Your task to perform on an android device: Show me productivity apps on the Play Store Image 0: 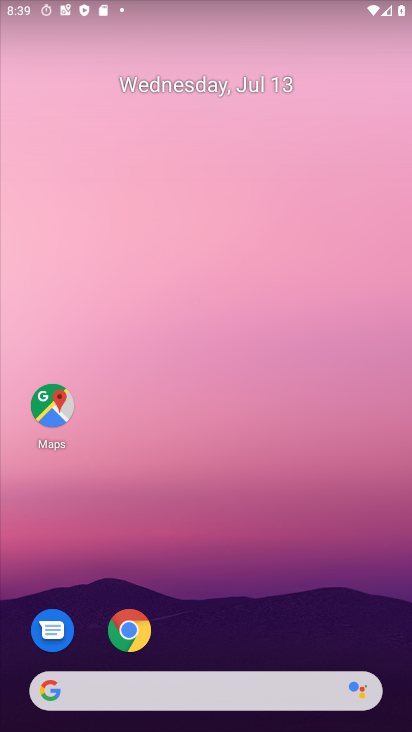
Step 0: drag from (159, 639) to (192, 155)
Your task to perform on an android device: Show me productivity apps on the Play Store Image 1: 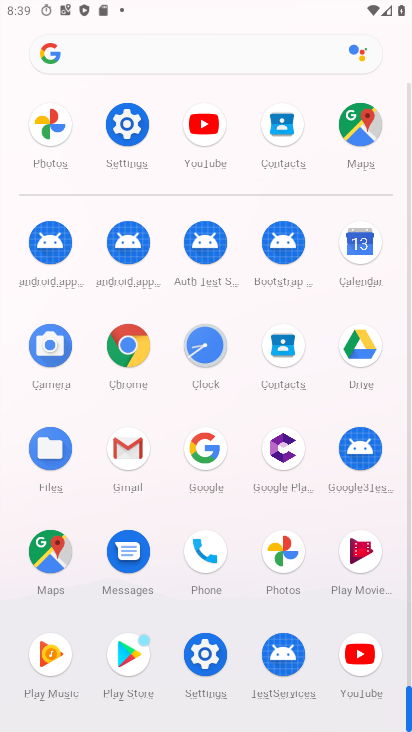
Step 1: drag from (175, 649) to (207, 297)
Your task to perform on an android device: Show me productivity apps on the Play Store Image 2: 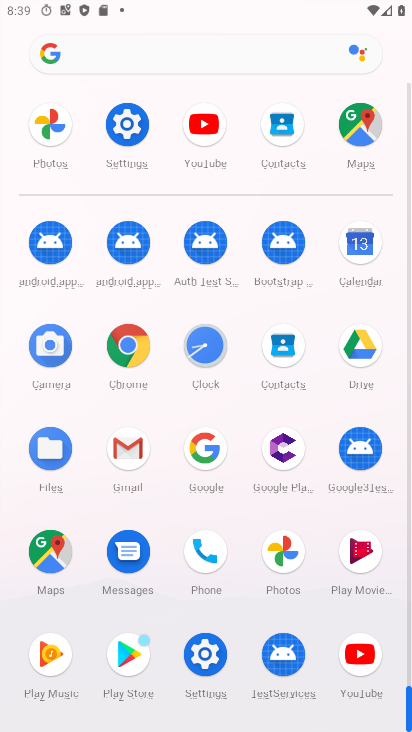
Step 2: click (121, 655)
Your task to perform on an android device: Show me productivity apps on the Play Store Image 3: 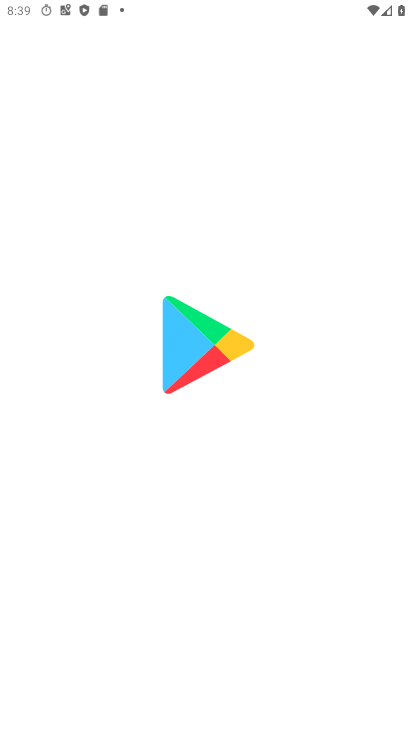
Step 3: drag from (196, 606) to (196, 376)
Your task to perform on an android device: Show me productivity apps on the Play Store Image 4: 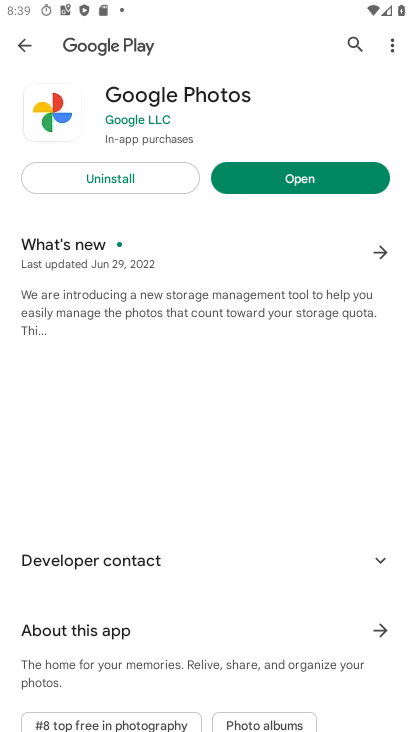
Step 4: drag from (204, 292) to (240, 591)
Your task to perform on an android device: Show me productivity apps on the Play Store Image 5: 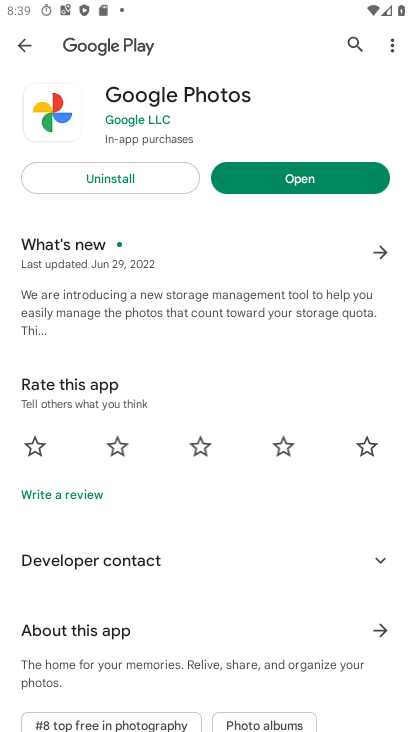
Step 5: drag from (158, 470) to (180, 255)
Your task to perform on an android device: Show me productivity apps on the Play Store Image 6: 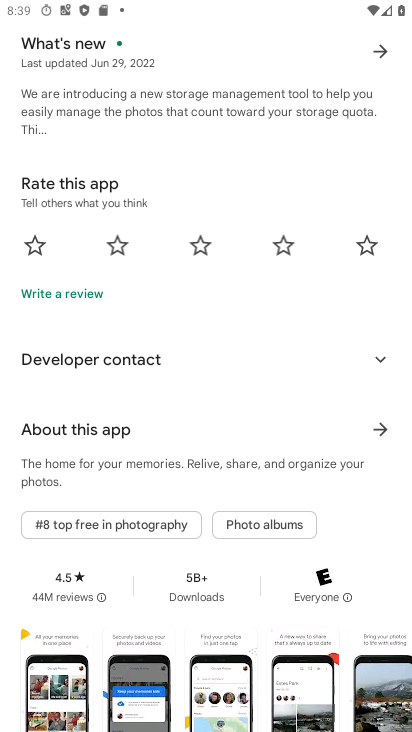
Step 6: drag from (175, 296) to (233, 640)
Your task to perform on an android device: Show me productivity apps on the Play Store Image 7: 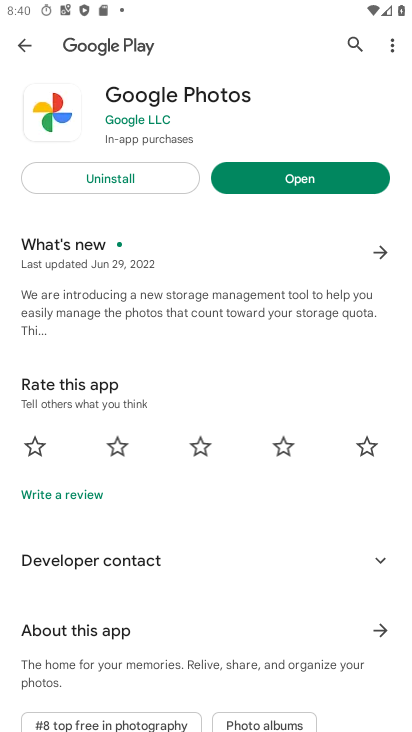
Step 7: click (21, 48)
Your task to perform on an android device: Show me productivity apps on the Play Store Image 8: 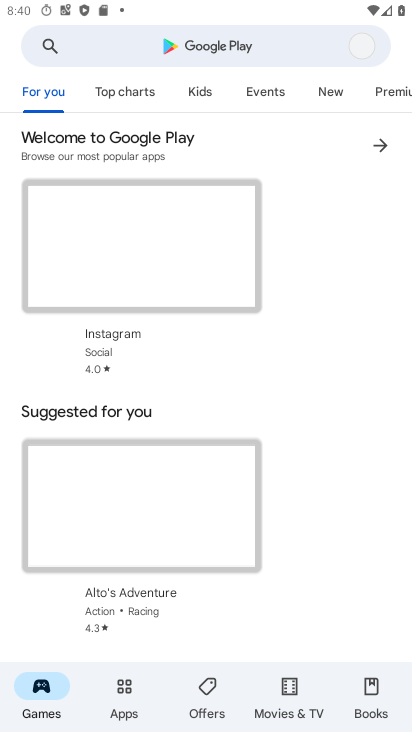
Step 8: task complete